Your task to perform on an android device: toggle pop-ups in chrome Image 0: 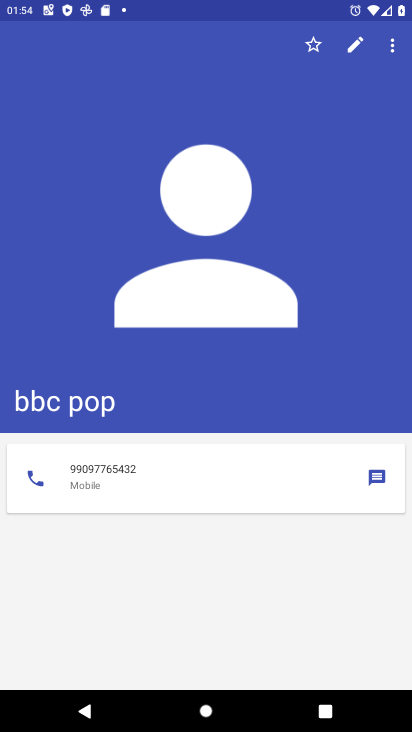
Step 0: press home button
Your task to perform on an android device: toggle pop-ups in chrome Image 1: 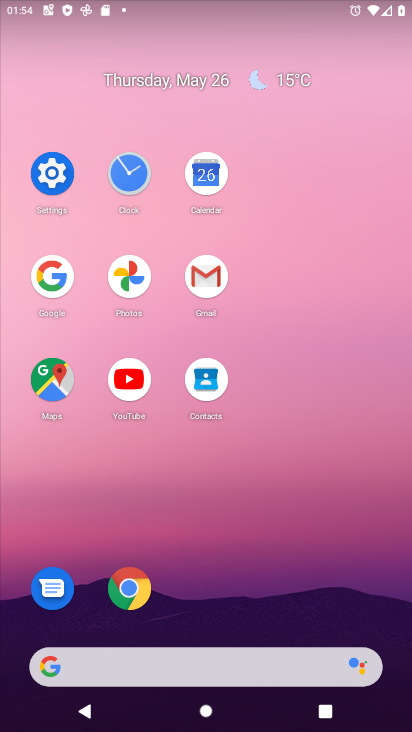
Step 1: click (142, 596)
Your task to perform on an android device: toggle pop-ups in chrome Image 2: 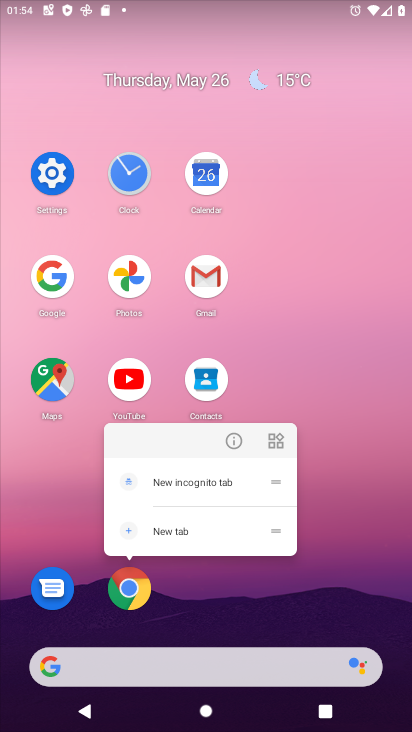
Step 2: click (128, 589)
Your task to perform on an android device: toggle pop-ups in chrome Image 3: 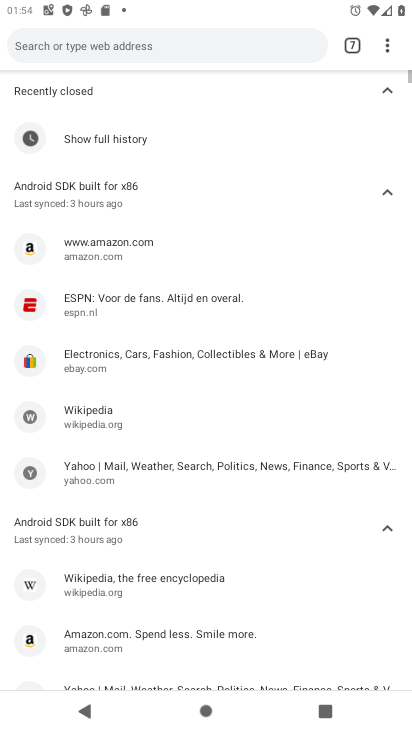
Step 3: click (391, 40)
Your task to perform on an android device: toggle pop-ups in chrome Image 4: 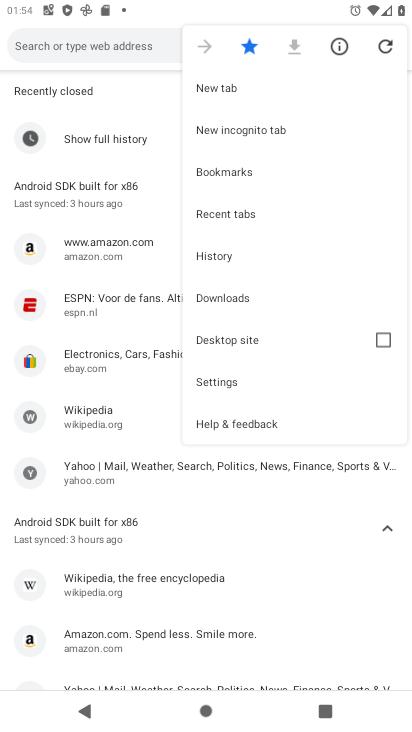
Step 4: click (243, 377)
Your task to perform on an android device: toggle pop-ups in chrome Image 5: 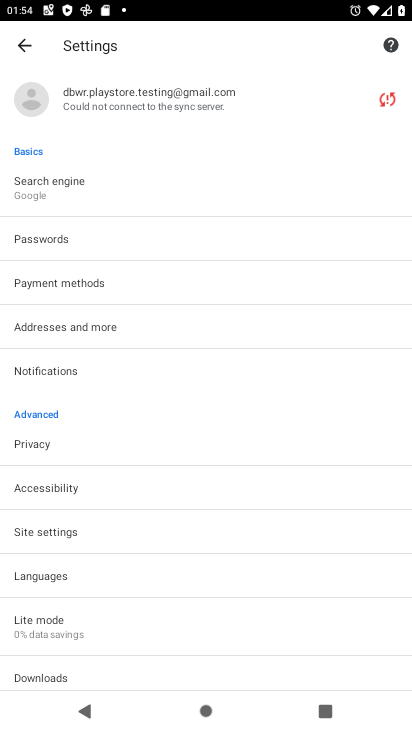
Step 5: click (84, 538)
Your task to perform on an android device: toggle pop-ups in chrome Image 6: 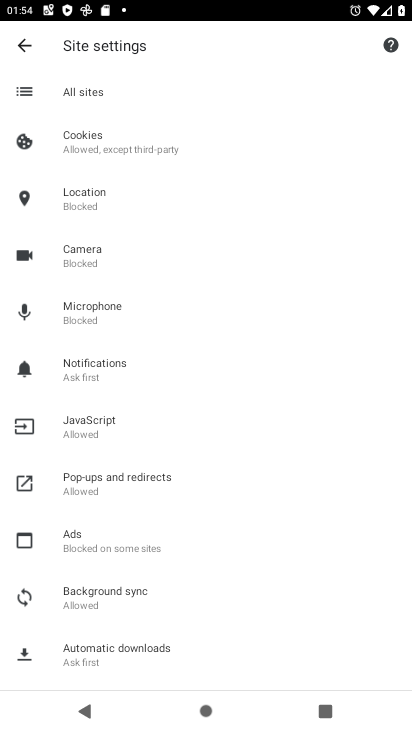
Step 6: click (152, 491)
Your task to perform on an android device: toggle pop-ups in chrome Image 7: 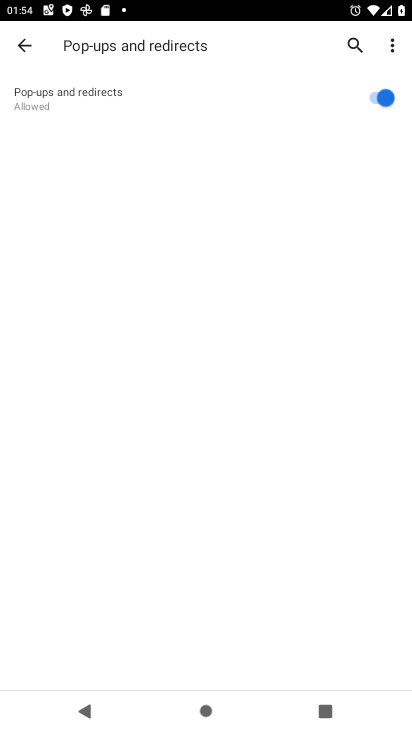
Step 7: click (386, 100)
Your task to perform on an android device: toggle pop-ups in chrome Image 8: 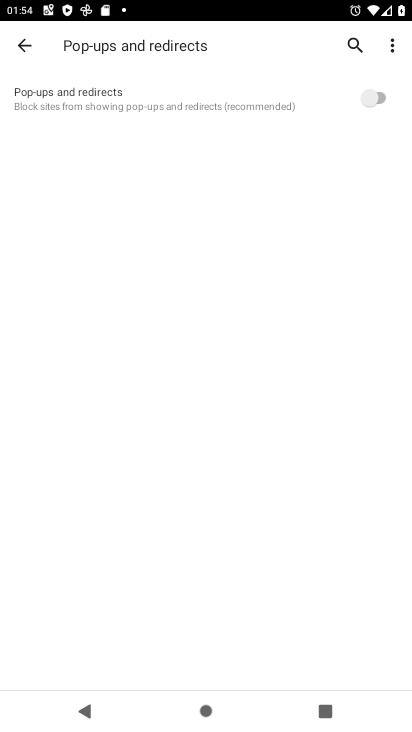
Step 8: task complete